Your task to perform on an android device: delete browsing data in the chrome app Image 0: 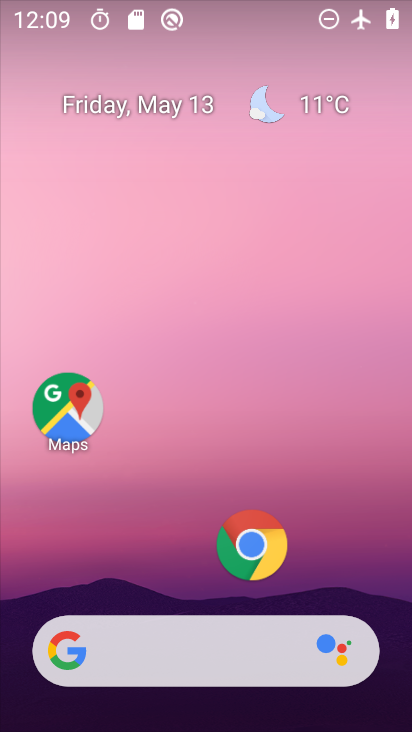
Step 0: click (248, 541)
Your task to perform on an android device: delete browsing data in the chrome app Image 1: 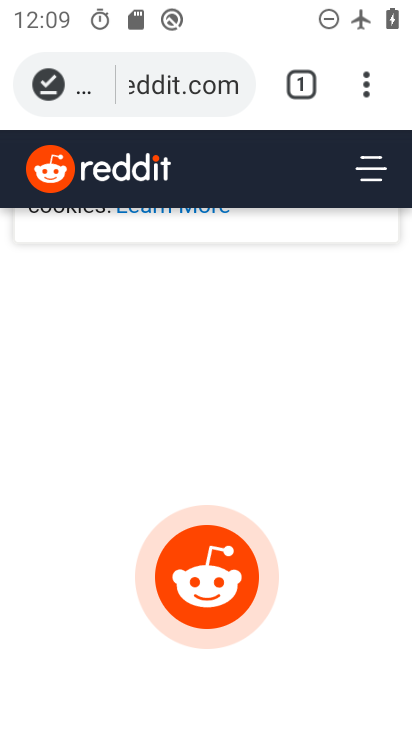
Step 1: click (369, 80)
Your task to perform on an android device: delete browsing data in the chrome app Image 2: 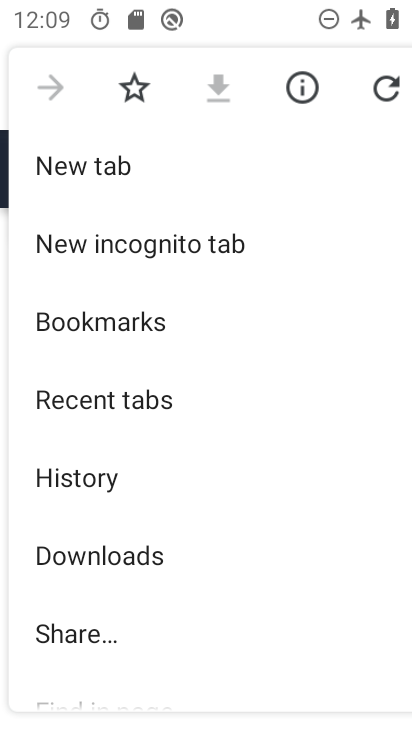
Step 2: click (130, 472)
Your task to perform on an android device: delete browsing data in the chrome app Image 3: 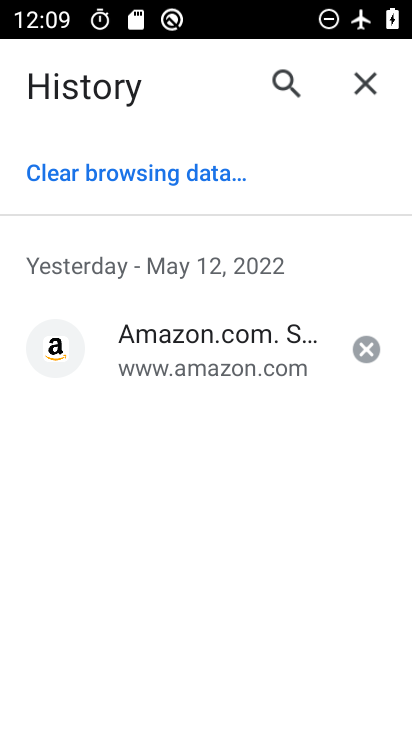
Step 3: click (137, 170)
Your task to perform on an android device: delete browsing data in the chrome app Image 4: 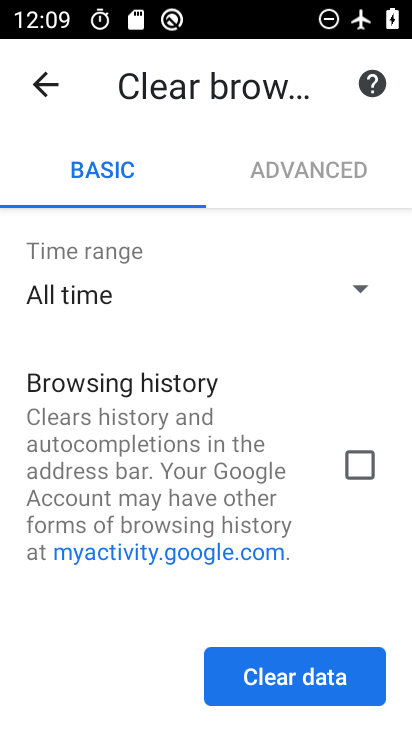
Step 4: click (356, 471)
Your task to perform on an android device: delete browsing data in the chrome app Image 5: 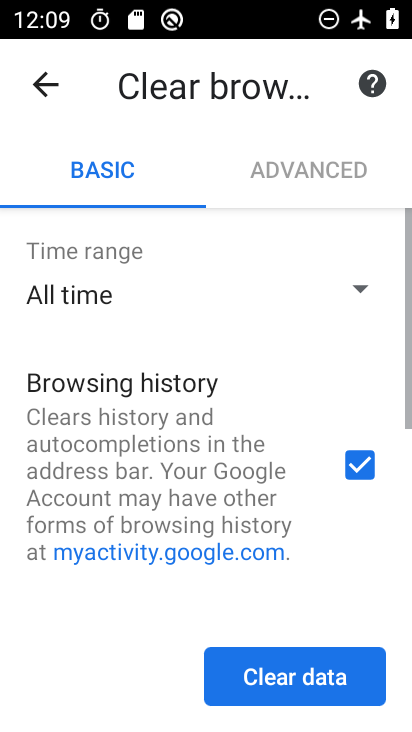
Step 5: drag from (166, 548) to (193, 170)
Your task to perform on an android device: delete browsing data in the chrome app Image 6: 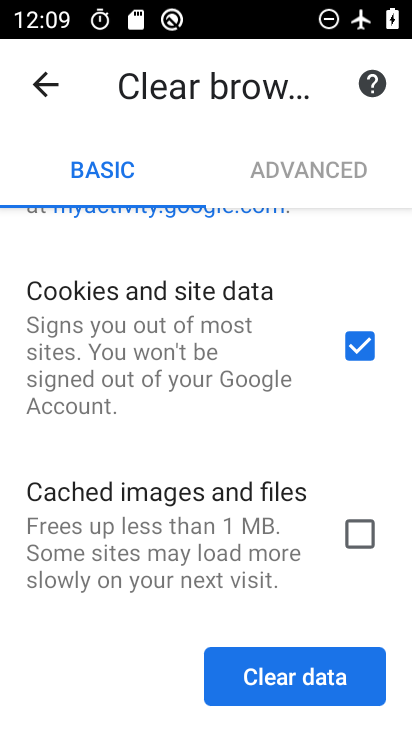
Step 6: click (348, 539)
Your task to perform on an android device: delete browsing data in the chrome app Image 7: 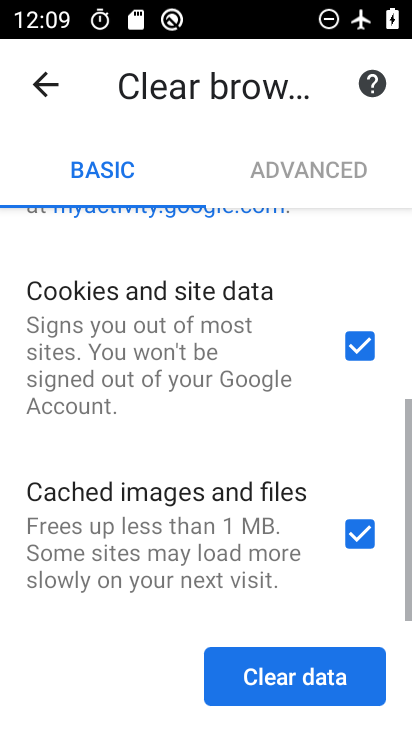
Step 7: click (320, 666)
Your task to perform on an android device: delete browsing data in the chrome app Image 8: 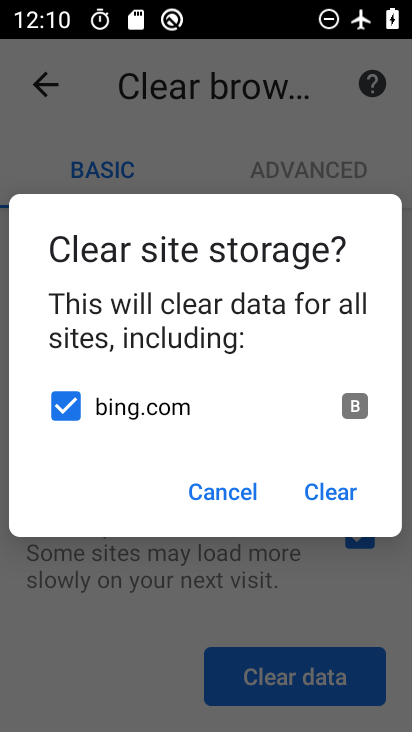
Step 8: click (327, 494)
Your task to perform on an android device: delete browsing data in the chrome app Image 9: 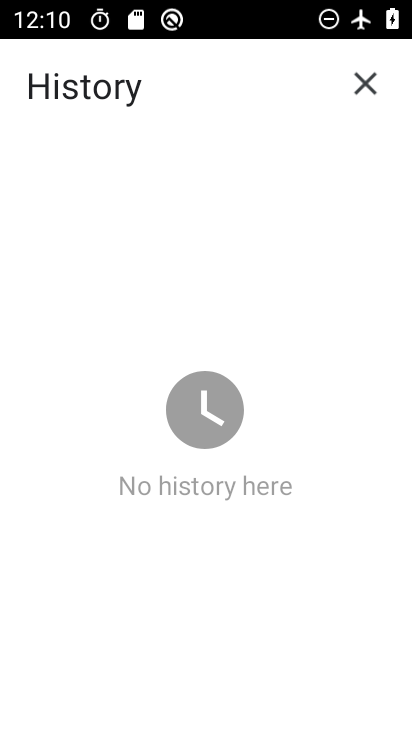
Step 9: task complete